Your task to perform on an android device: Open the phone app and click the voicemail tab. Image 0: 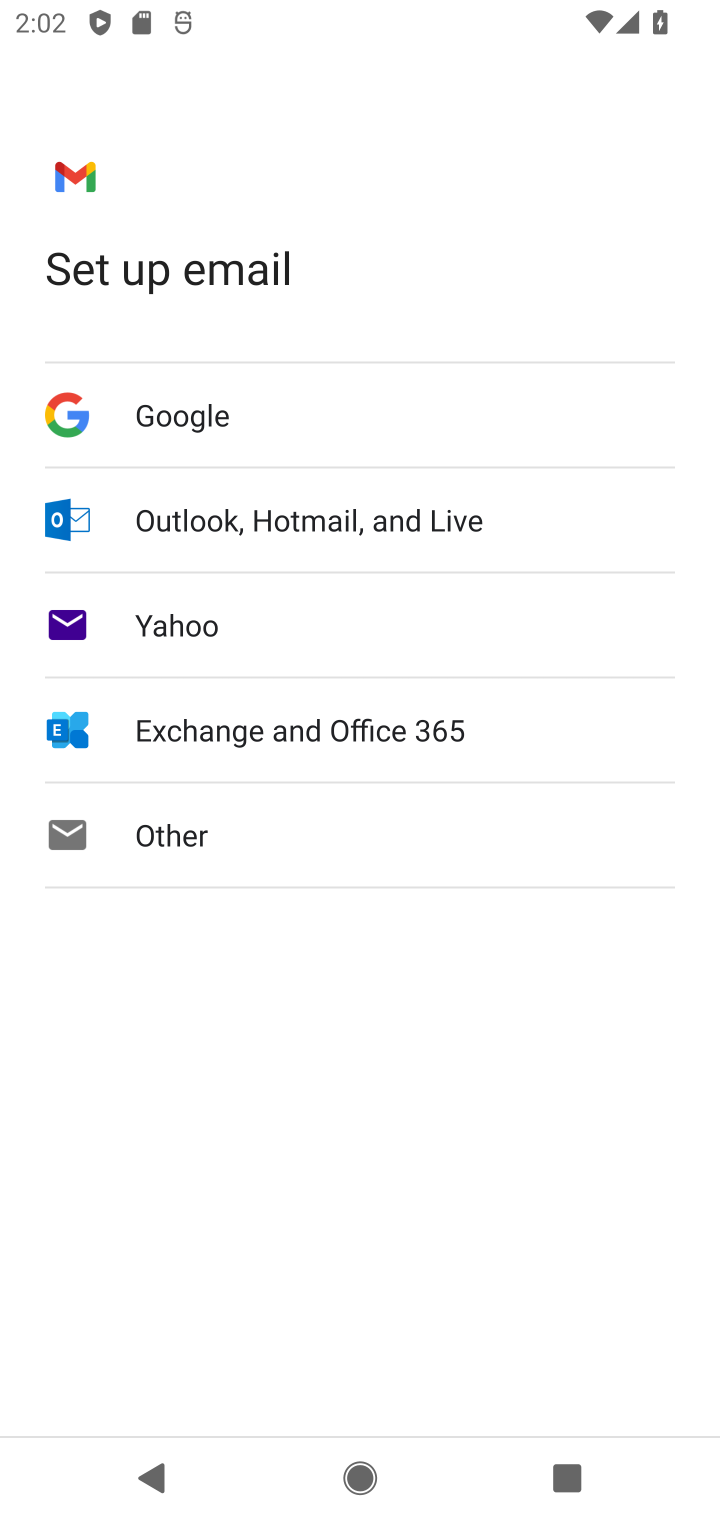
Step 0: press home button
Your task to perform on an android device: Open the phone app and click the voicemail tab. Image 1: 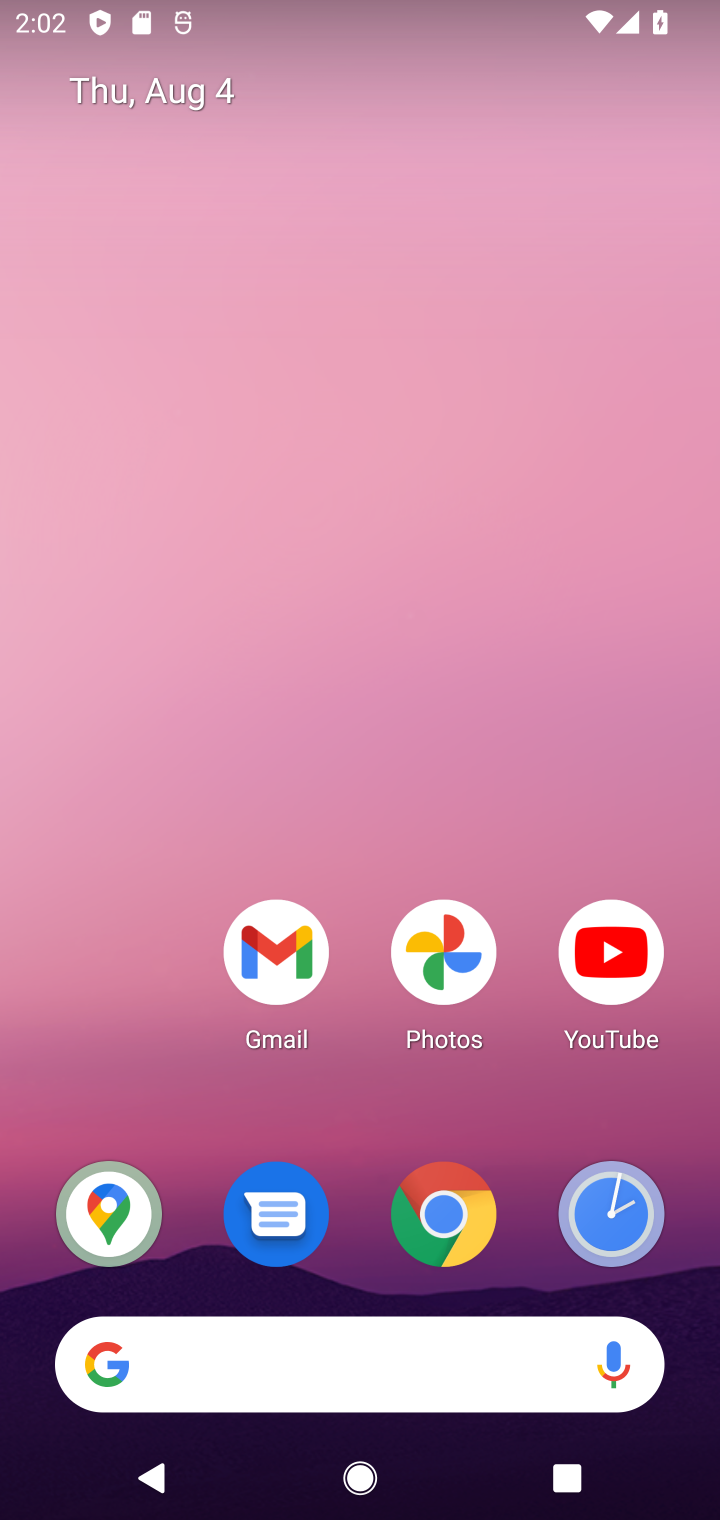
Step 1: drag from (642, 716) to (360, 21)
Your task to perform on an android device: Open the phone app and click the voicemail tab. Image 2: 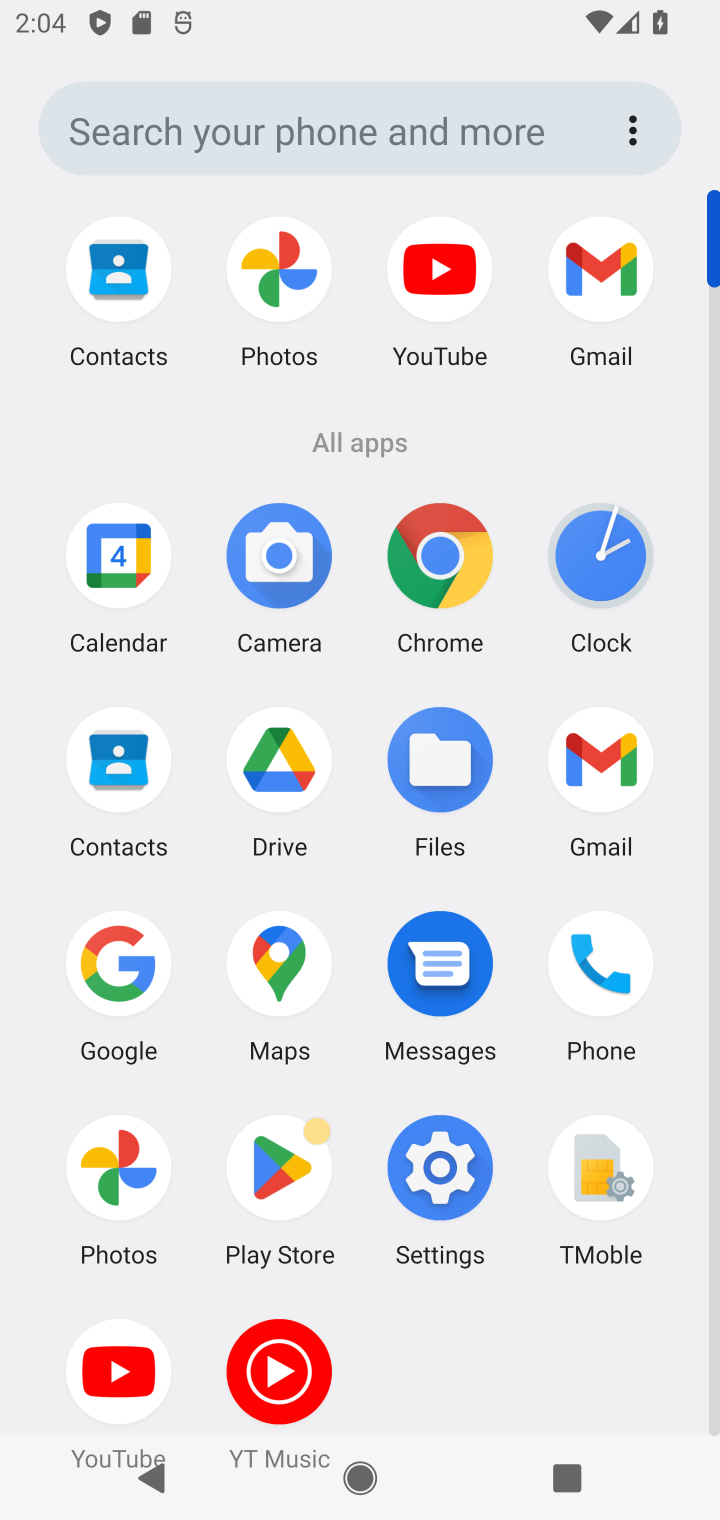
Step 2: click (588, 959)
Your task to perform on an android device: Open the phone app and click the voicemail tab. Image 3: 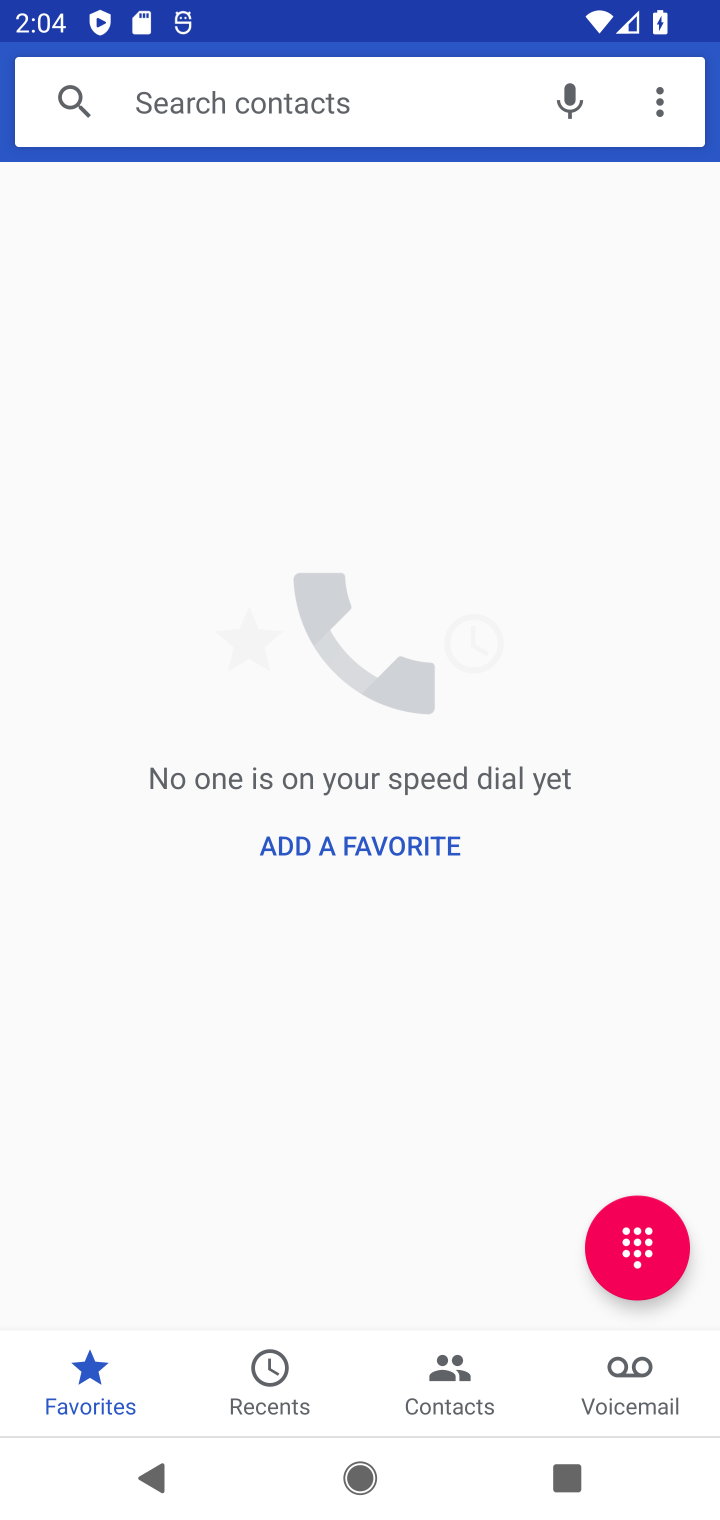
Step 3: click (620, 1379)
Your task to perform on an android device: Open the phone app and click the voicemail tab. Image 4: 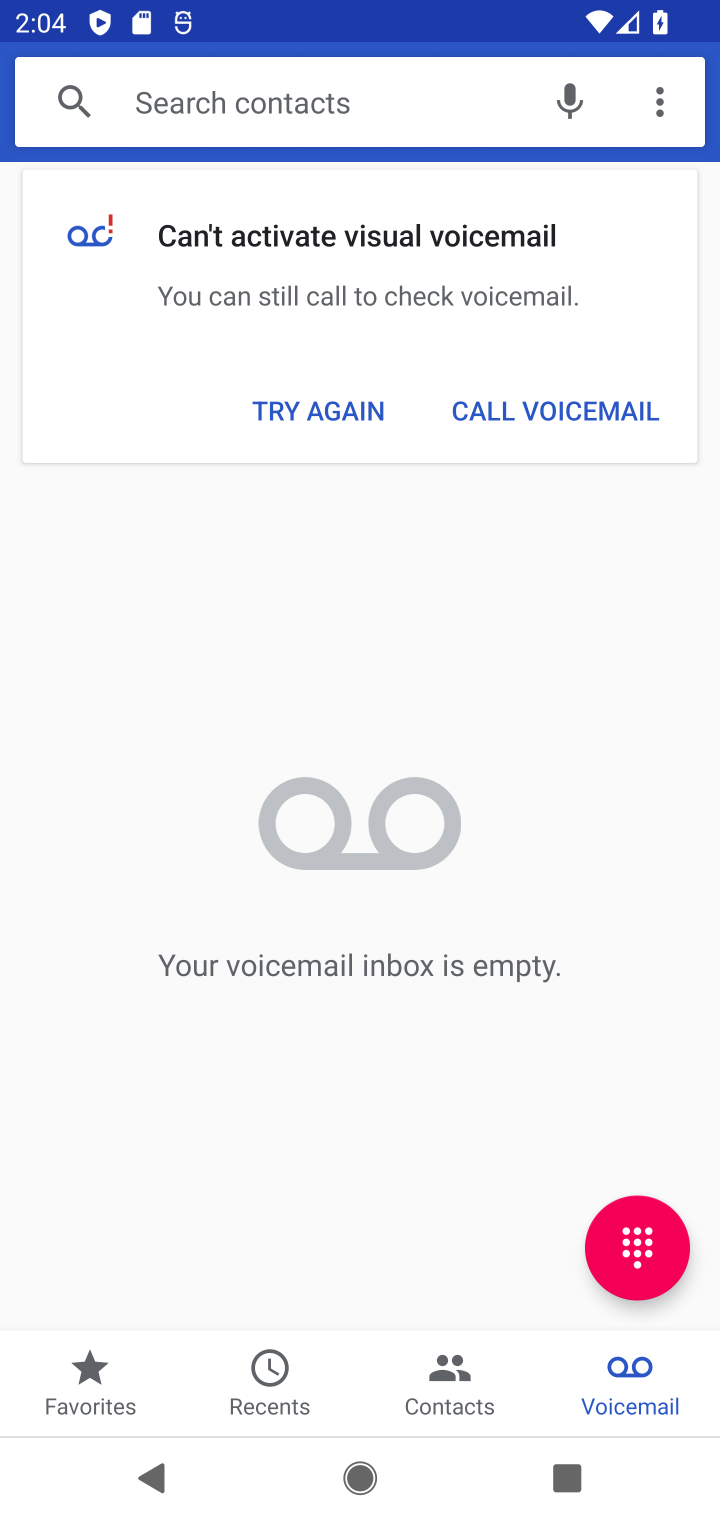
Step 4: task complete